Your task to perform on an android device: turn on the 12-hour format for clock Image 0: 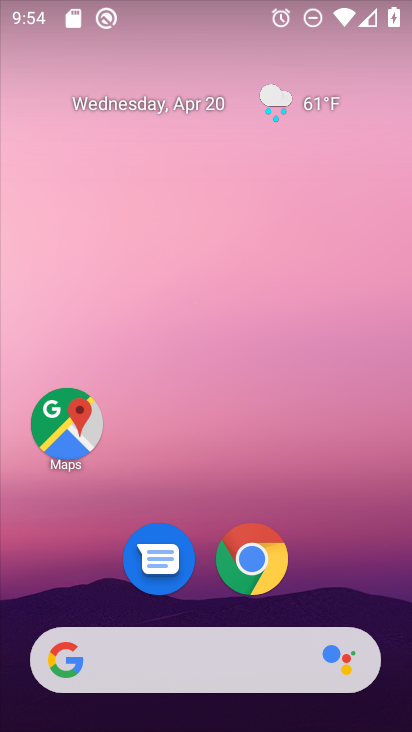
Step 0: drag from (373, 606) to (324, 201)
Your task to perform on an android device: turn on the 12-hour format for clock Image 1: 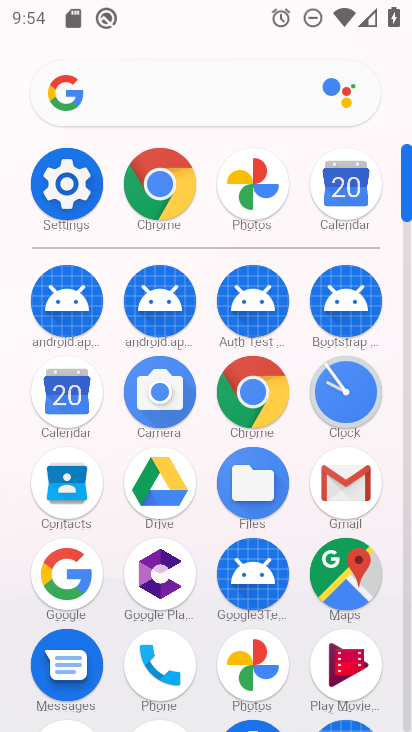
Step 1: click (406, 698)
Your task to perform on an android device: turn on the 12-hour format for clock Image 2: 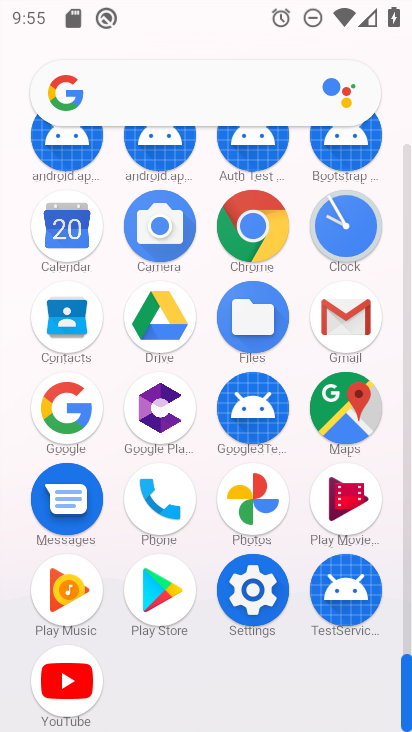
Step 2: click (339, 218)
Your task to perform on an android device: turn on the 12-hour format for clock Image 3: 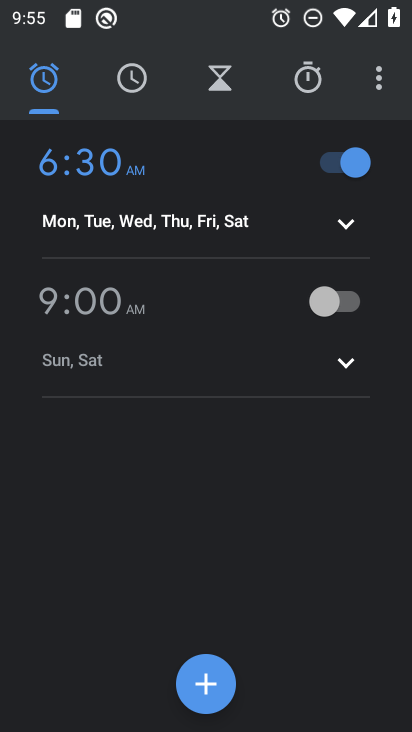
Step 3: click (378, 88)
Your task to perform on an android device: turn on the 12-hour format for clock Image 4: 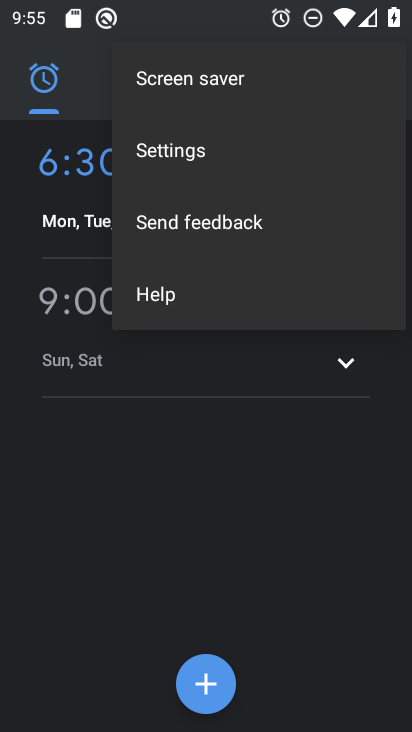
Step 4: click (162, 144)
Your task to perform on an android device: turn on the 12-hour format for clock Image 5: 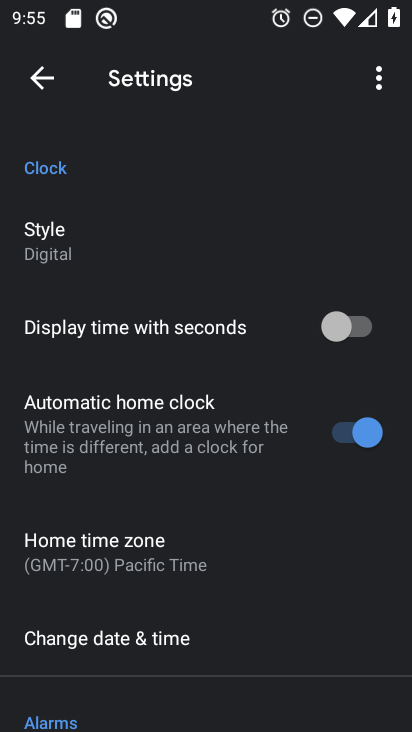
Step 5: click (126, 639)
Your task to perform on an android device: turn on the 12-hour format for clock Image 6: 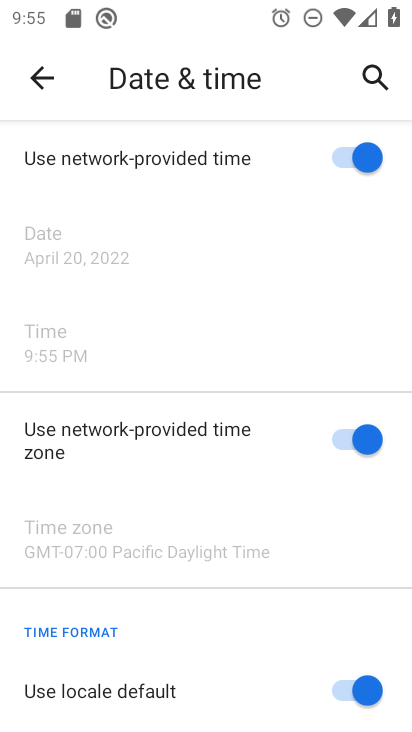
Step 6: task complete